Your task to perform on an android device: turn off translation in the chrome app Image 0: 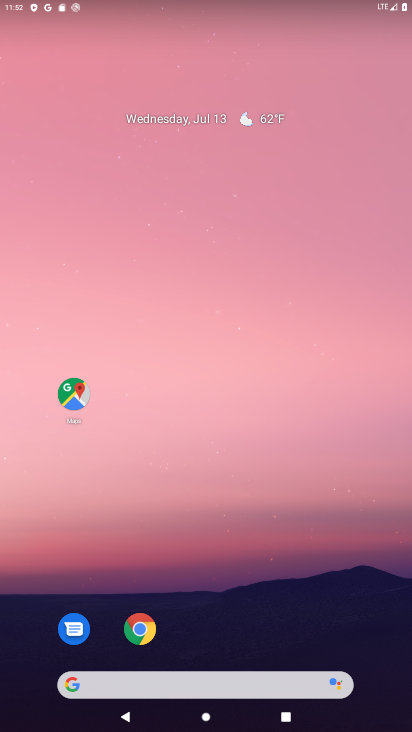
Step 0: click (142, 620)
Your task to perform on an android device: turn off translation in the chrome app Image 1: 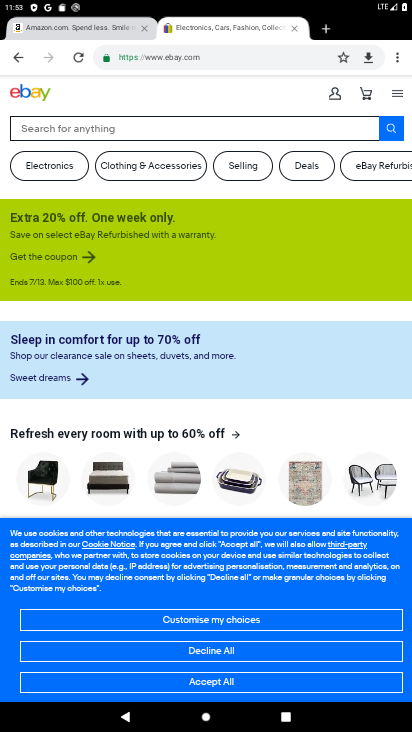
Step 1: click (403, 51)
Your task to perform on an android device: turn off translation in the chrome app Image 2: 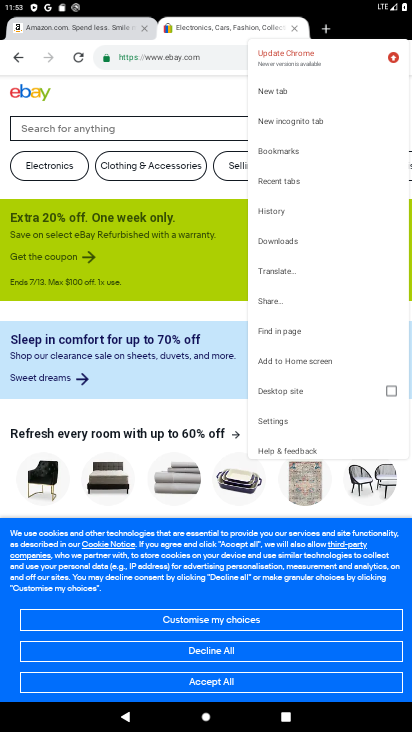
Step 2: click (270, 420)
Your task to perform on an android device: turn off translation in the chrome app Image 3: 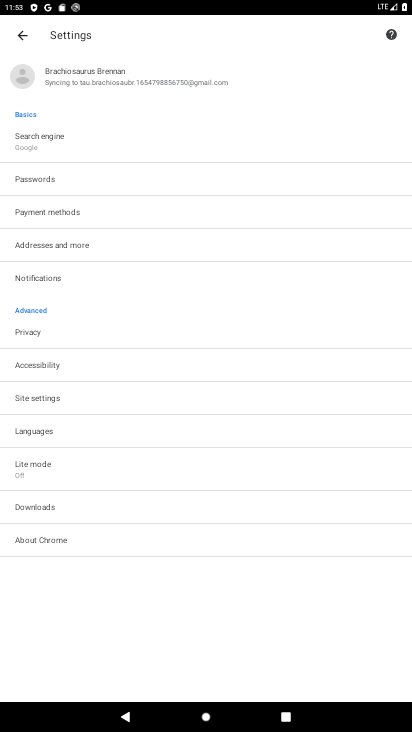
Step 3: click (40, 435)
Your task to perform on an android device: turn off translation in the chrome app Image 4: 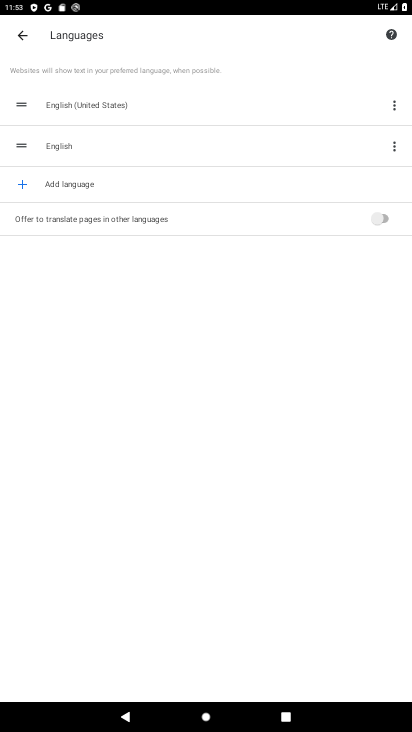
Step 4: task complete